Your task to perform on an android device: Search for good Thai restaurants Image 0: 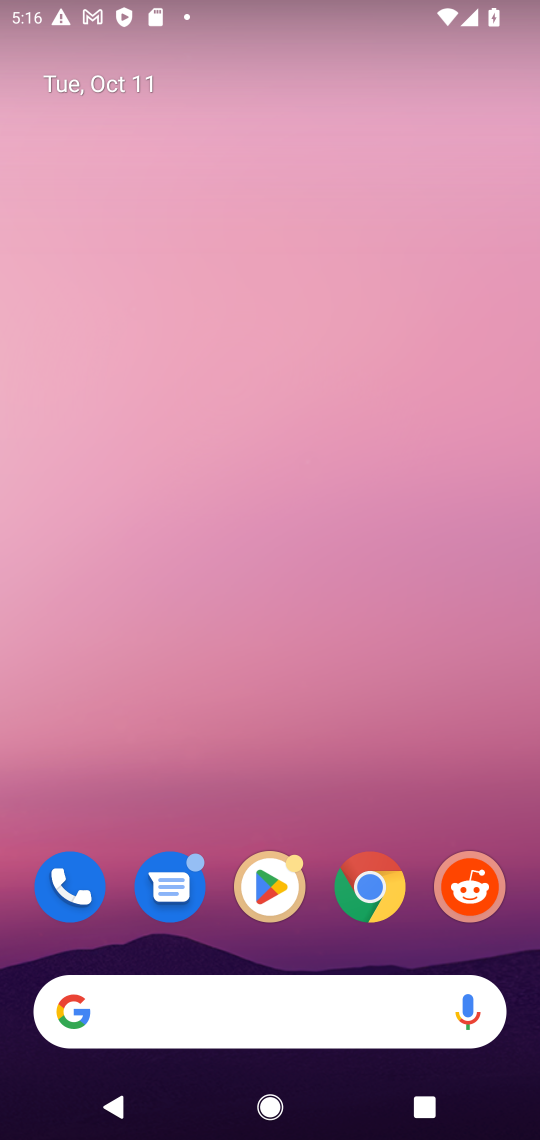
Step 0: click (288, 1008)
Your task to perform on an android device: Search for good Thai restaurants Image 1: 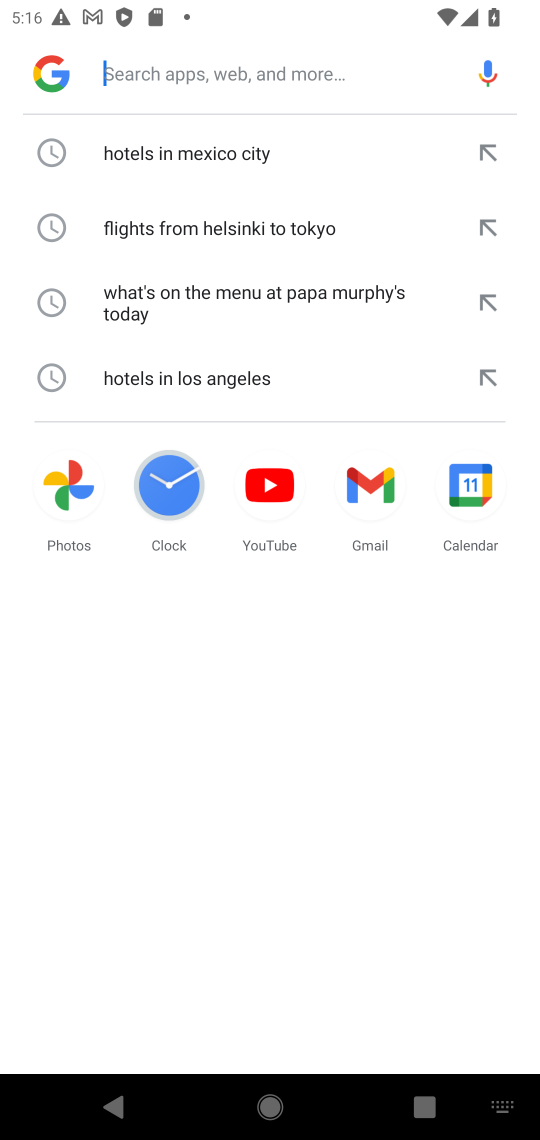
Step 1: type "good Thai restaurants"
Your task to perform on an android device: Search for good Thai restaurants Image 2: 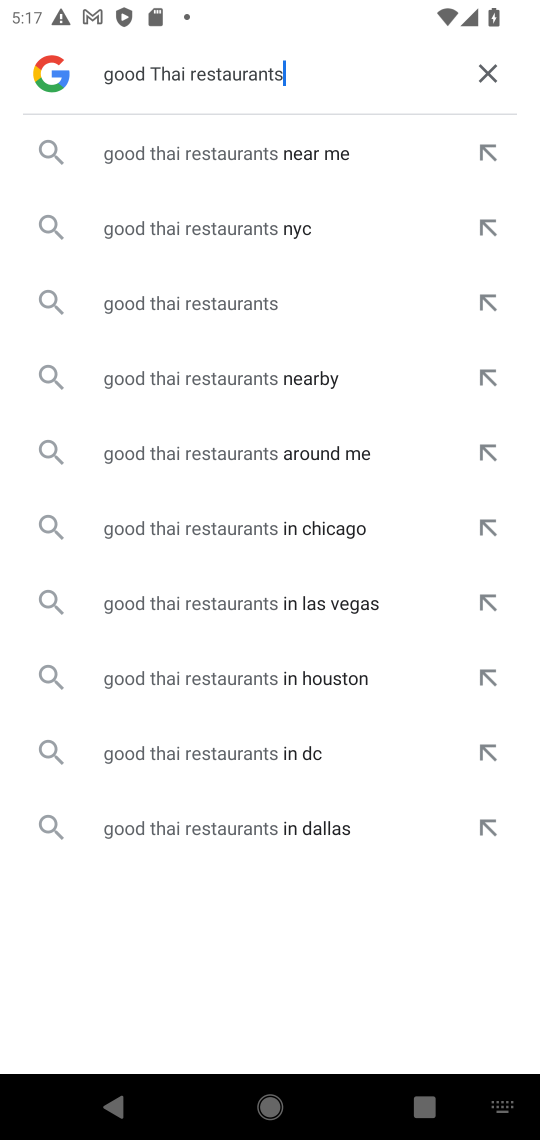
Step 2: click (307, 159)
Your task to perform on an android device: Search for good Thai restaurants Image 3: 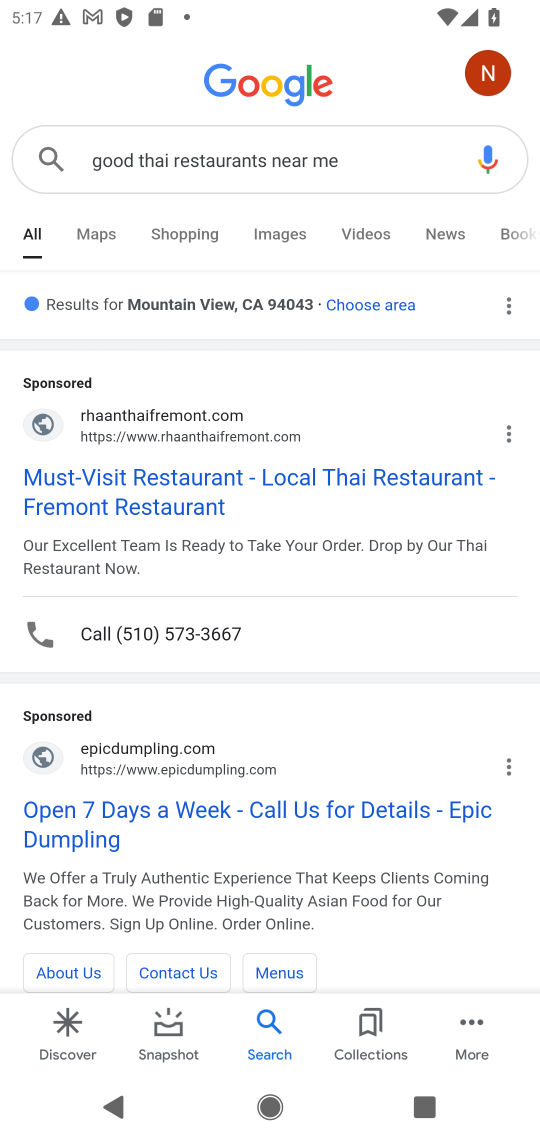
Step 3: task complete